Your task to perform on an android device: turn off smart reply in the gmail app Image 0: 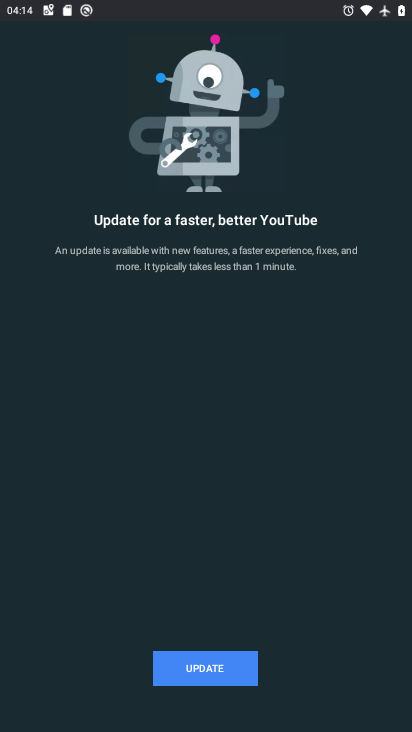
Step 0: press back button
Your task to perform on an android device: turn off smart reply in the gmail app Image 1: 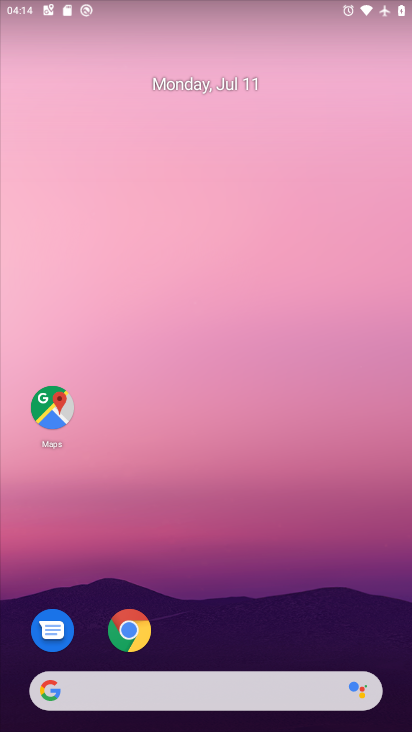
Step 1: drag from (230, 621) to (199, 104)
Your task to perform on an android device: turn off smart reply in the gmail app Image 2: 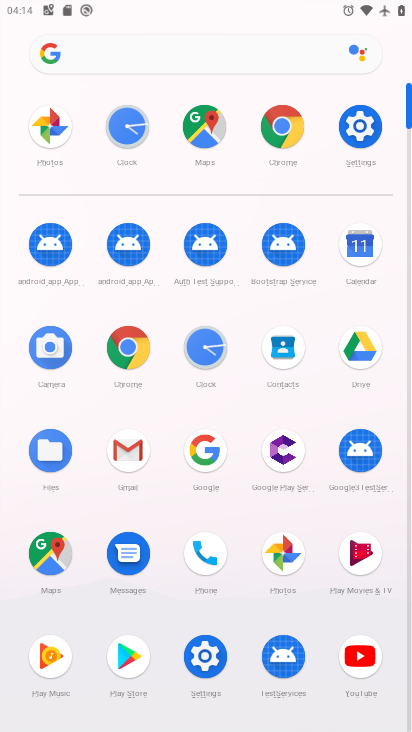
Step 2: click (134, 446)
Your task to perform on an android device: turn off smart reply in the gmail app Image 3: 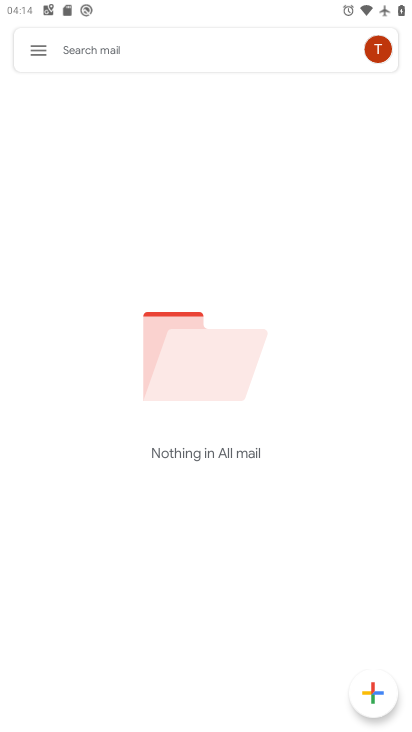
Step 3: click (29, 42)
Your task to perform on an android device: turn off smart reply in the gmail app Image 4: 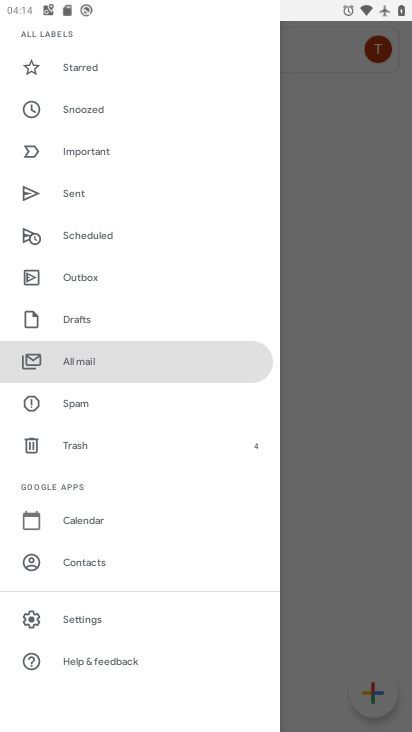
Step 4: click (73, 632)
Your task to perform on an android device: turn off smart reply in the gmail app Image 5: 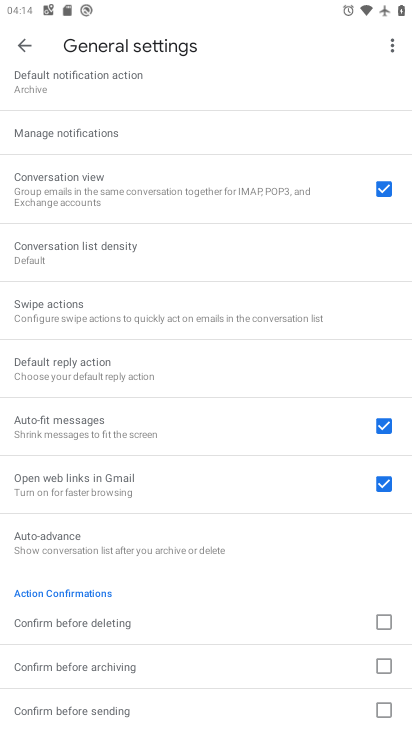
Step 5: task complete